Your task to perform on an android device: refresh tabs in the chrome app Image 0: 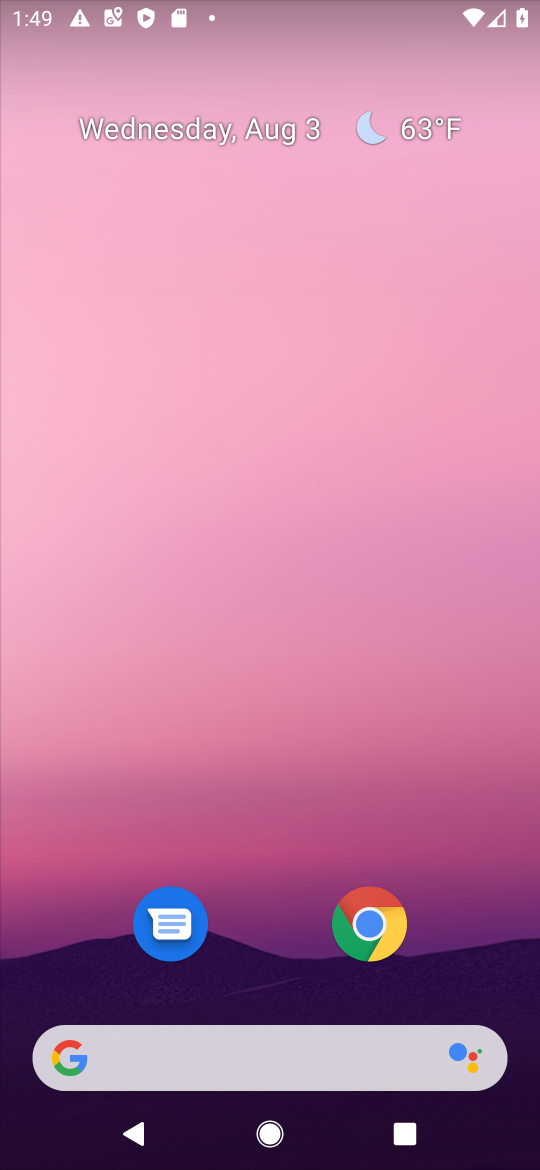
Step 0: press home button
Your task to perform on an android device: refresh tabs in the chrome app Image 1: 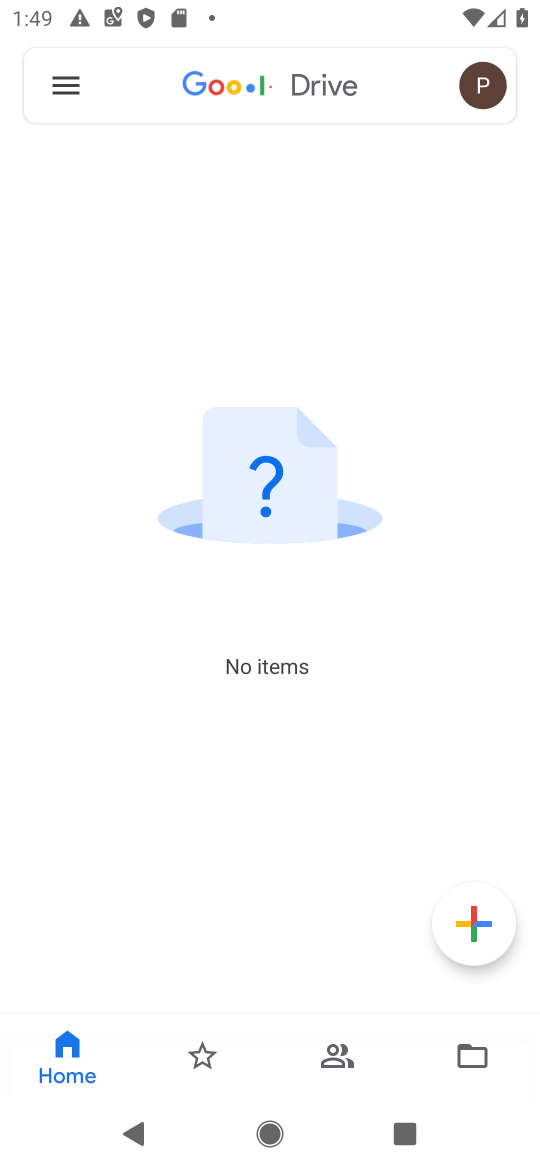
Step 1: drag from (269, 740) to (314, 171)
Your task to perform on an android device: refresh tabs in the chrome app Image 2: 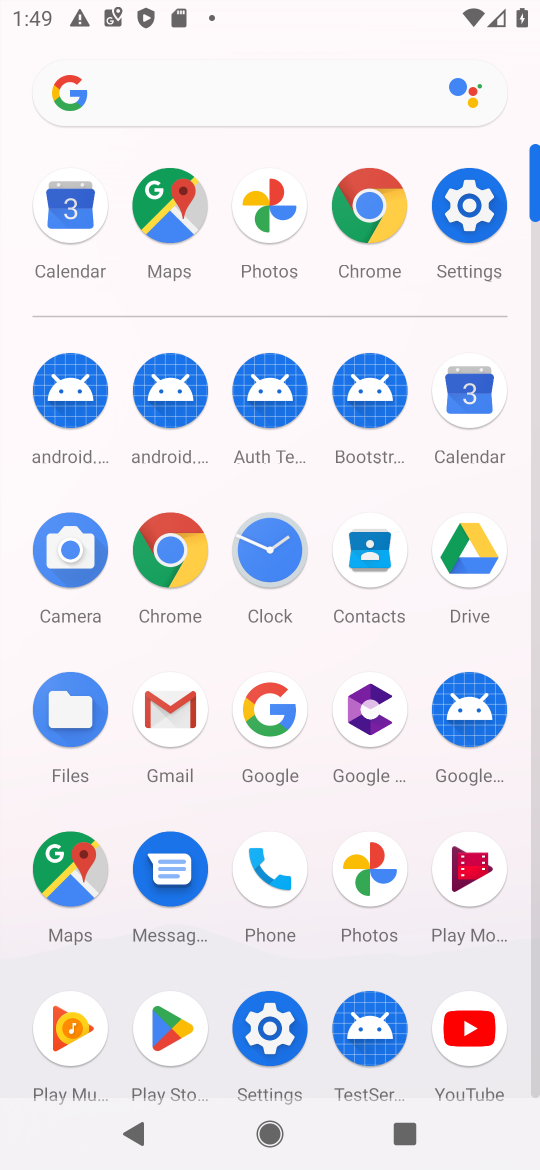
Step 2: click (365, 199)
Your task to perform on an android device: refresh tabs in the chrome app Image 3: 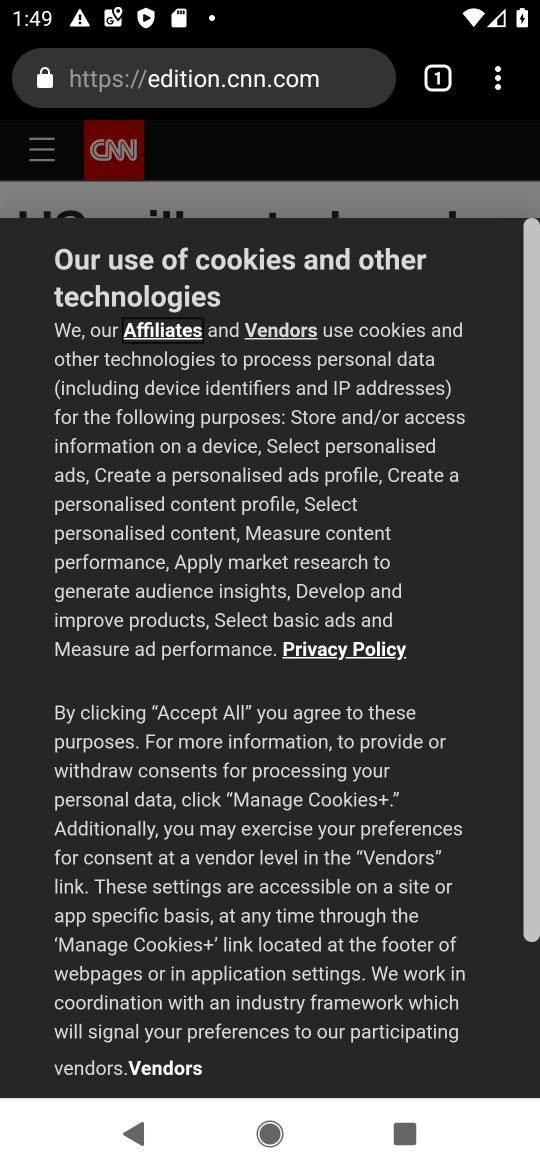
Step 3: drag from (288, 980) to (328, 465)
Your task to perform on an android device: refresh tabs in the chrome app Image 4: 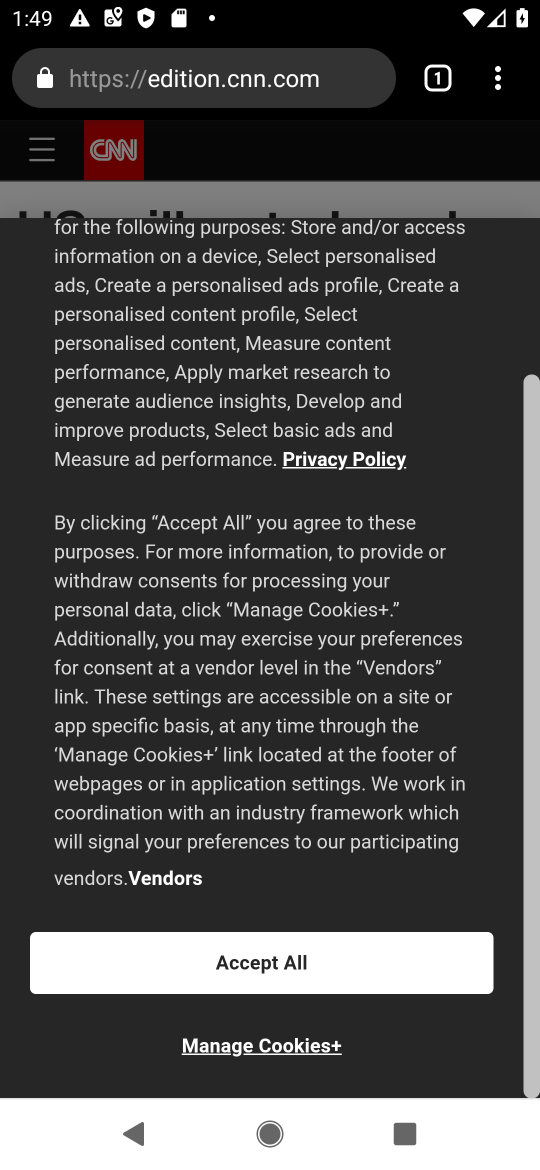
Step 4: click (269, 960)
Your task to perform on an android device: refresh tabs in the chrome app Image 5: 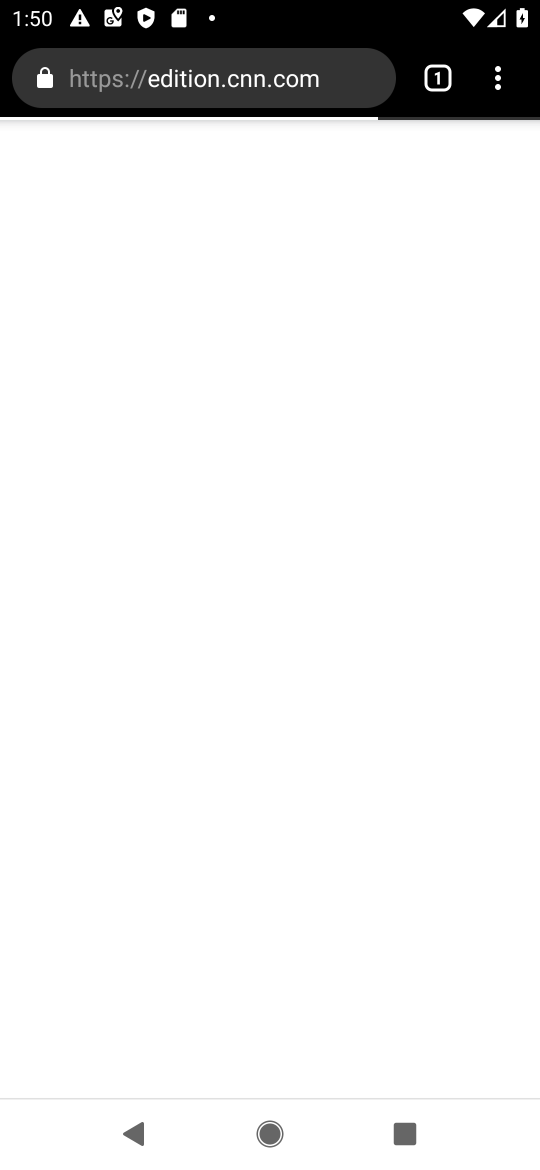
Step 5: click (500, 75)
Your task to perform on an android device: refresh tabs in the chrome app Image 6: 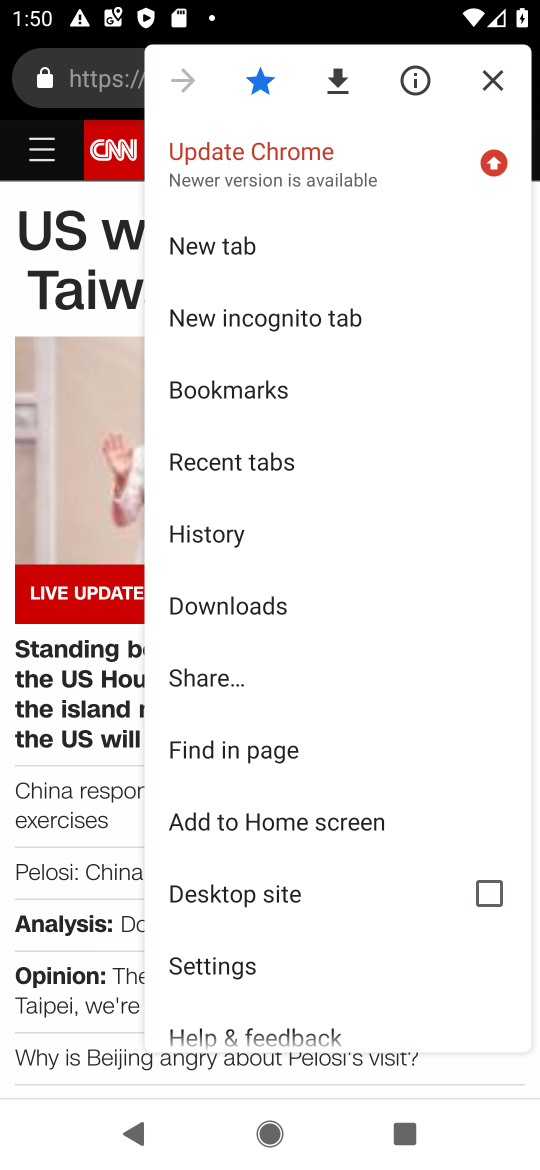
Step 6: click (501, 87)
Your task to perform on an android device: refresh tabs in the chrome app Image 7: 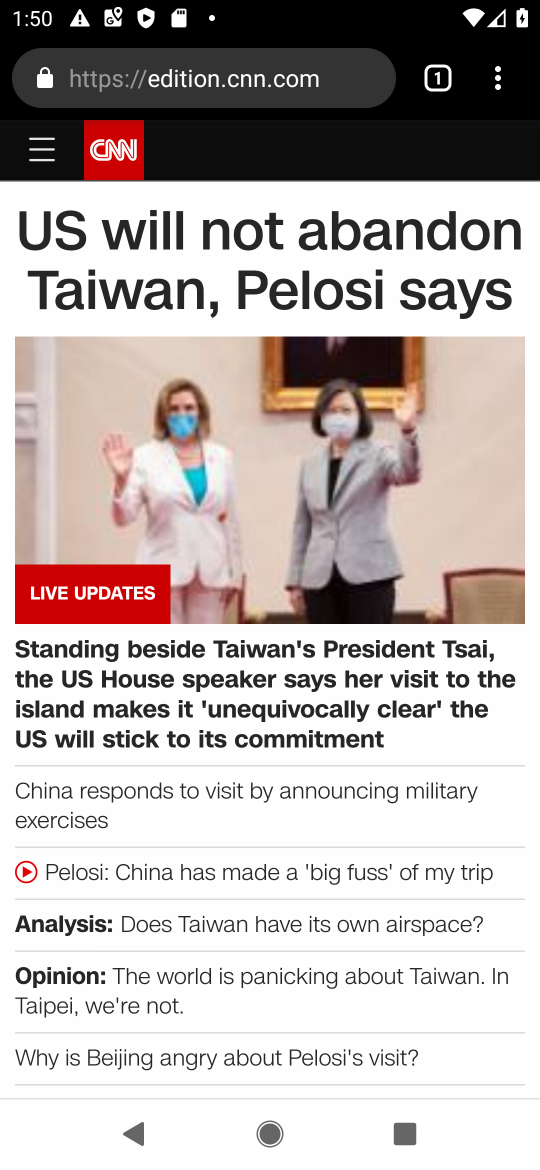
Step 7: click (499, 84)
Your task to perform on an android device: refresh tabs in the chrome app Image 8: 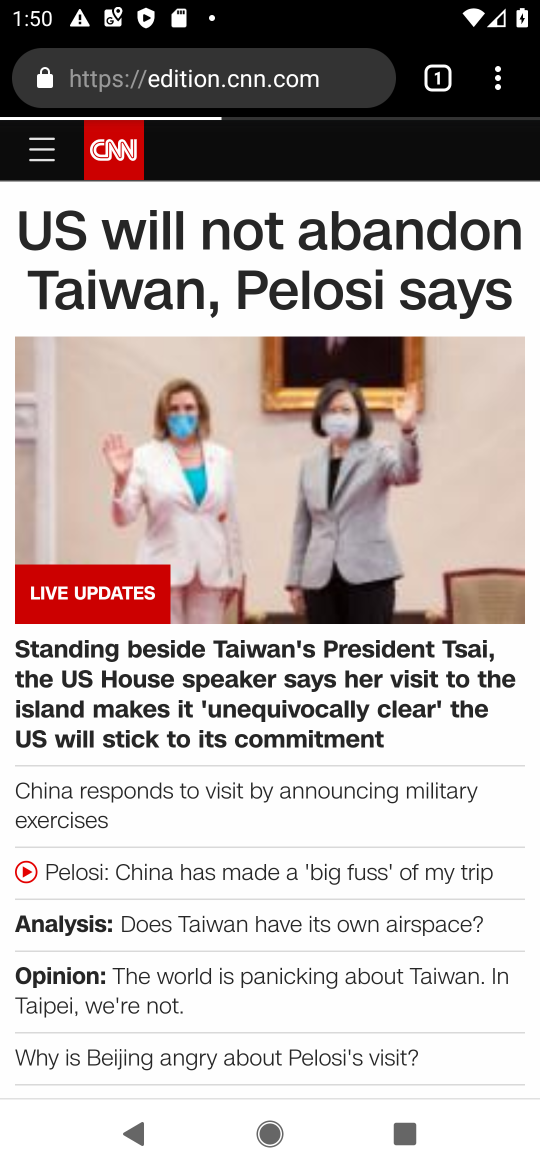
Step 8: task complete